Your task to perform on an android device: open app "Etsy: Buy & Sell Unique Items" Image 0: 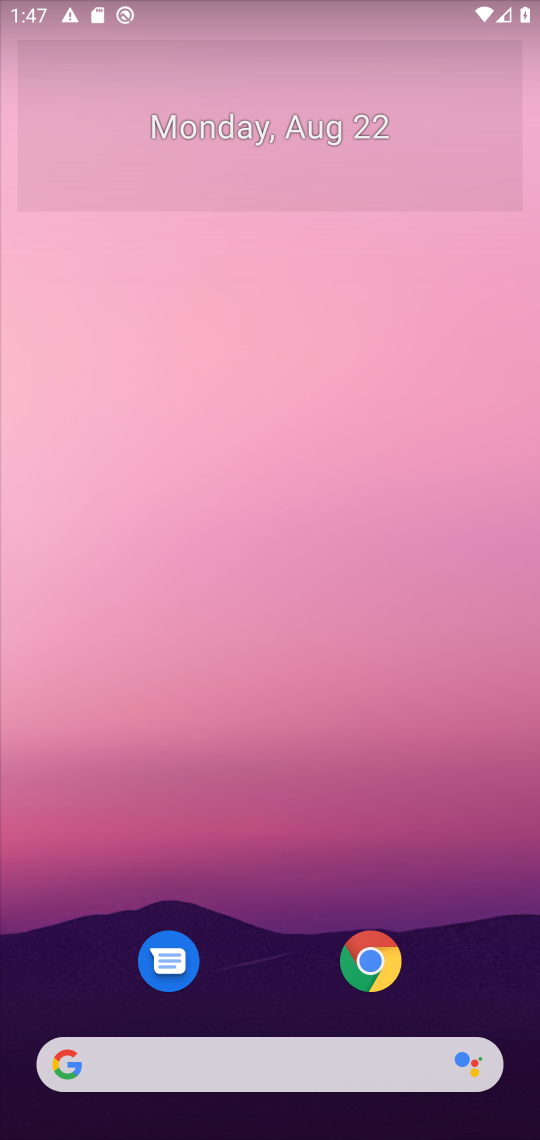
Step 0: press home button
Your task to perform on an android device: open app "Etsy: Buy & Sell Unique Items" Image 1: 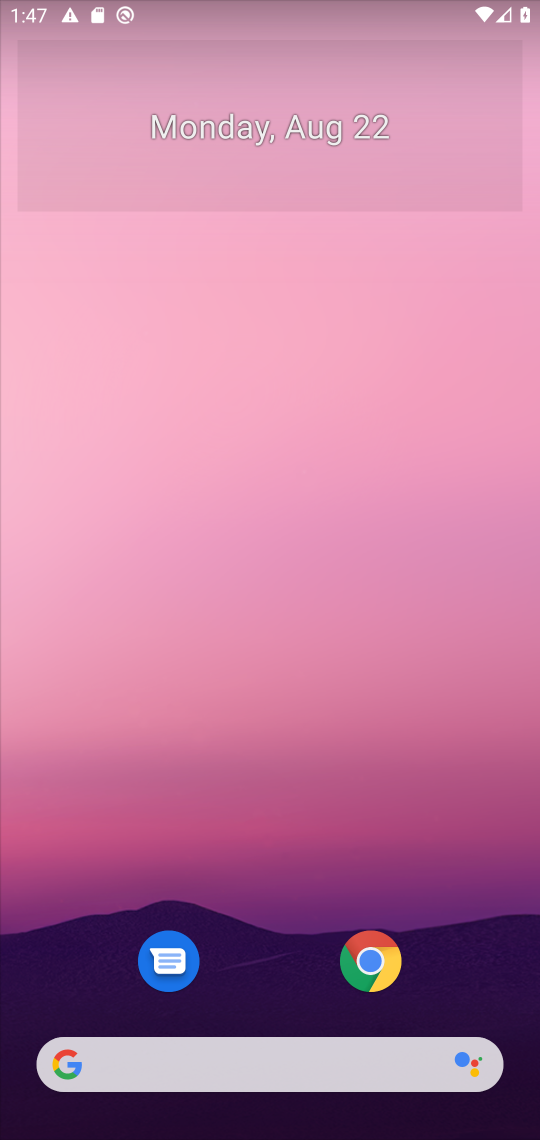
Step 1: drag from (464, 921) to (469, 182)
Your task to perform on an android device: open app "Etsy: Buy & Sell Unique Items" Image 2: 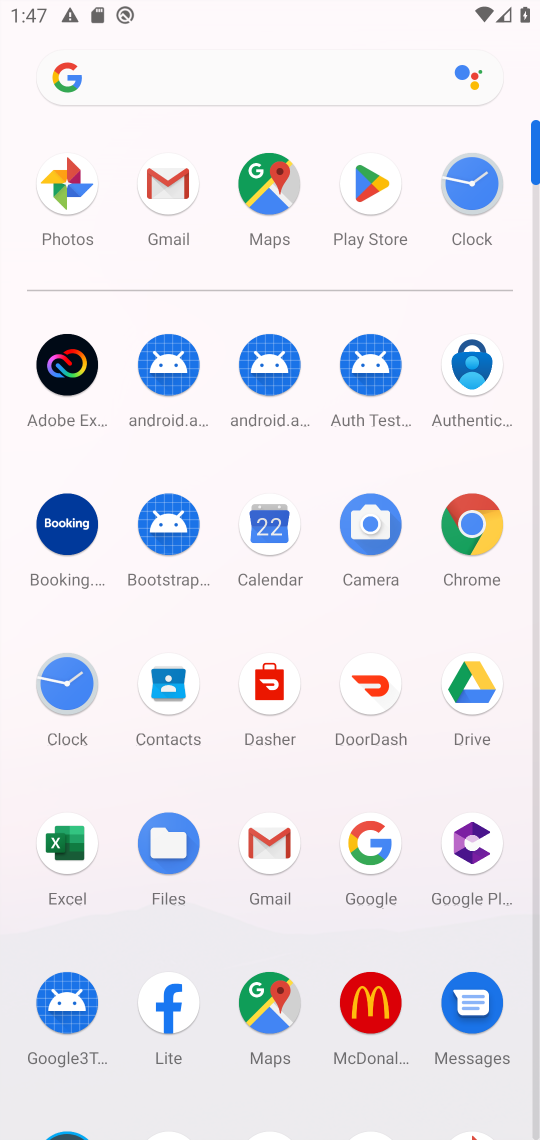
Step 2: click (372, 193)
Your task to perform on an android device: open app "Etsy: Buy & Sell Unique Items" Image 3: 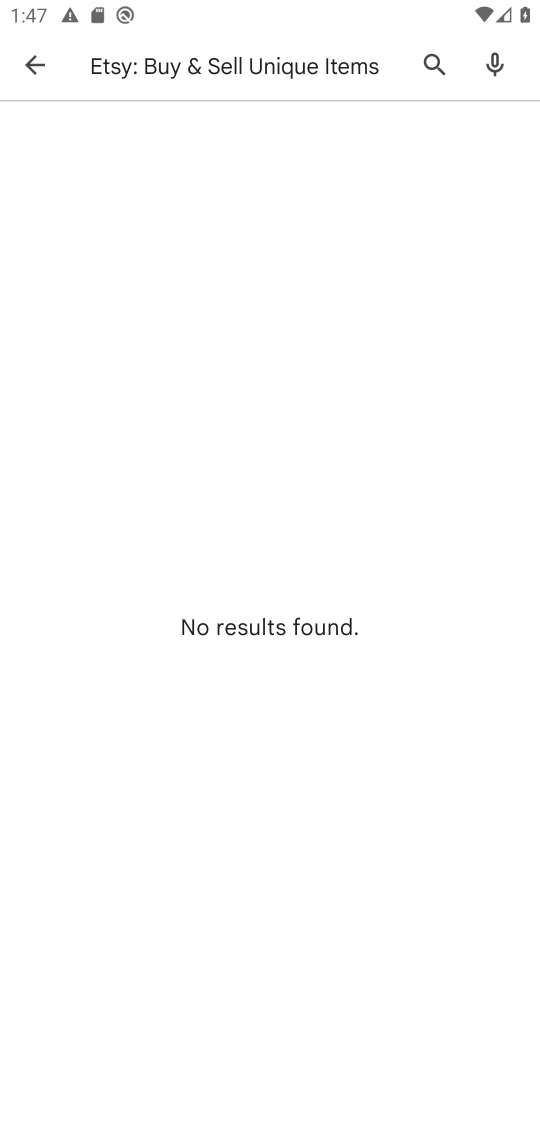
Step 3: press back button
Your task to perform on an android device: open app "Etsy: Buy & Sell Unique Items" Image 4: 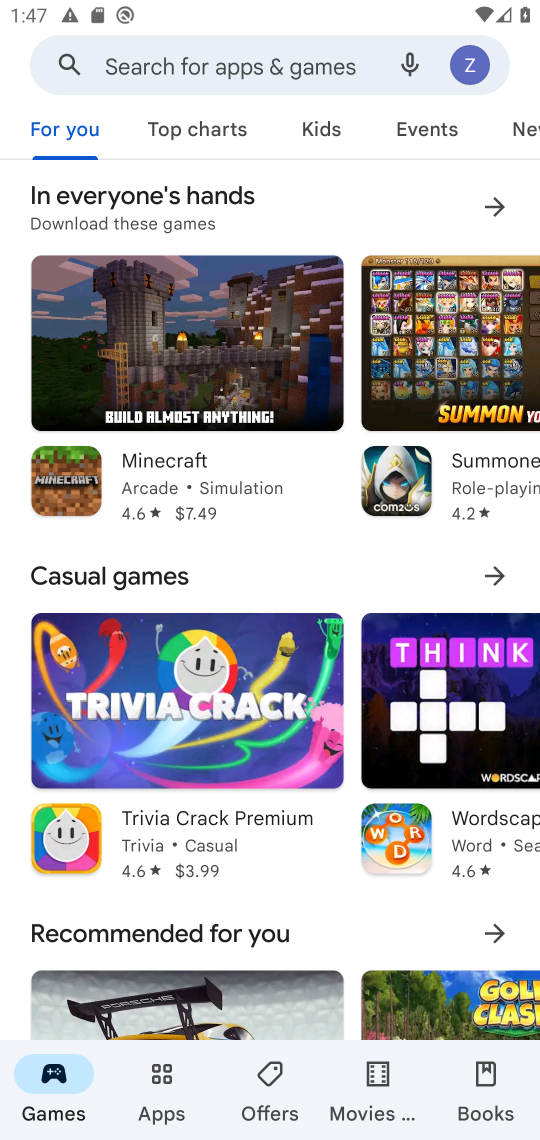
Step 4: click (319, 62)
Your task to perform on an android device: open app "Etsy: Buy & Sell Unique Items" Image 5: 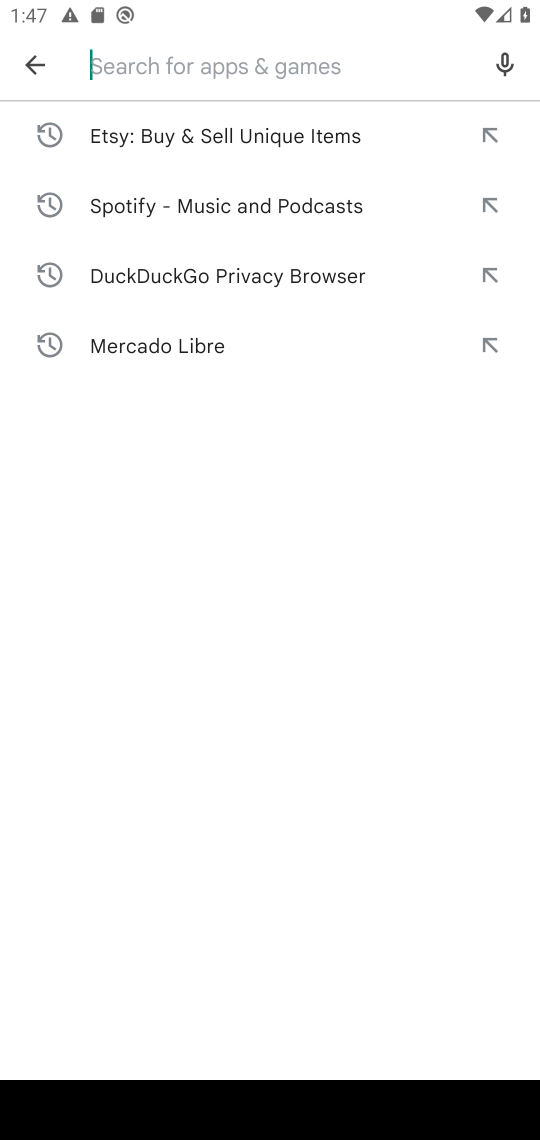
Step 5: type "Etsy: Buy & Sell Unique Items"
Your task to perform on an android device: open app "Etsy: Buy & Sell Unique Items" Image 6: 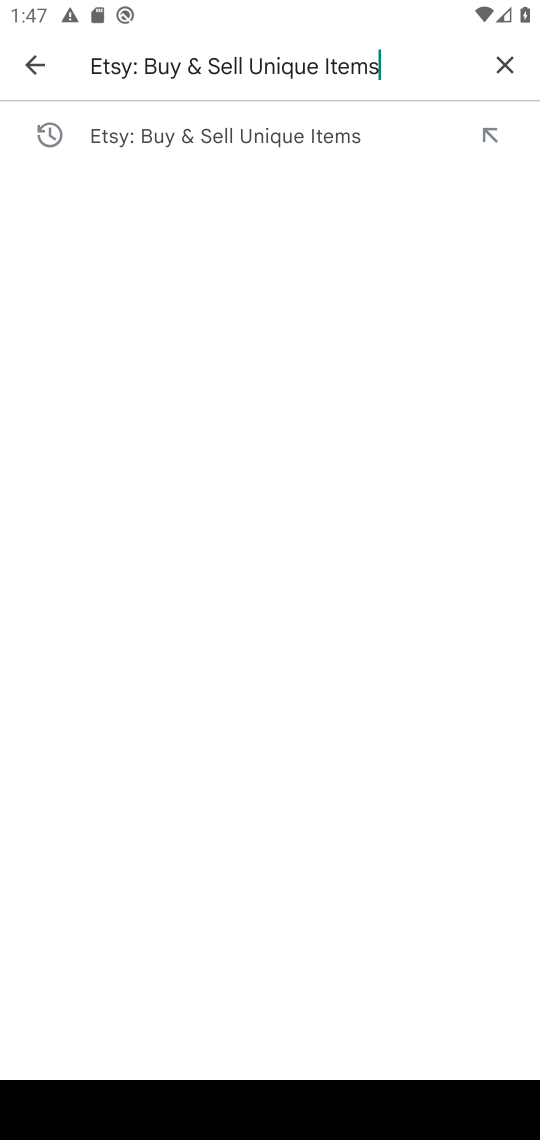
Step 6: press enter
Your task to perform on an android device: open app "Etsy: Buy & Sell Unique Items" Image 7: 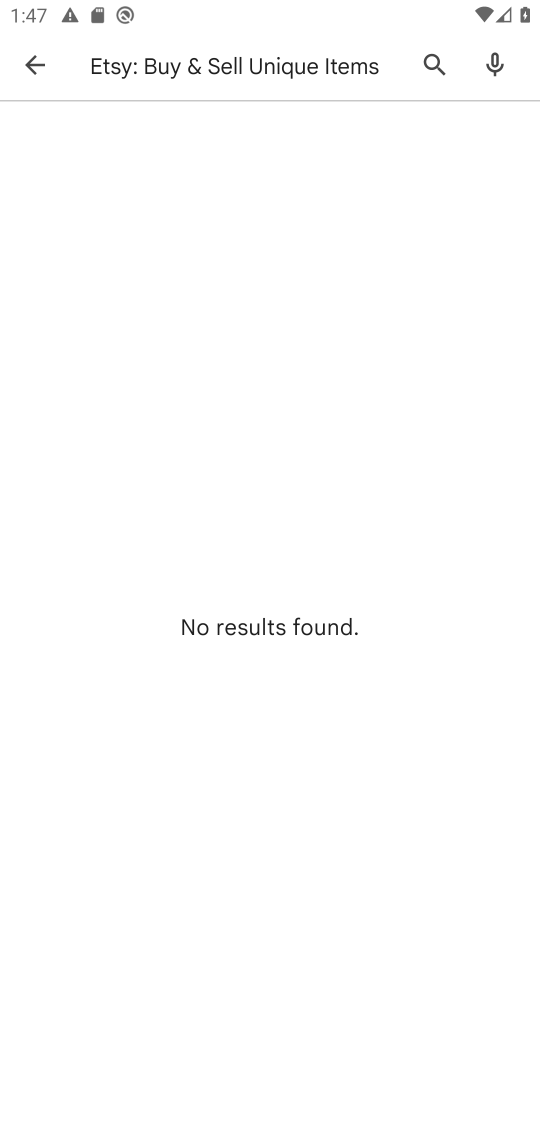
Step 7: task complete